Your task to perform on an android device: Turn on the flashlight Image 0: 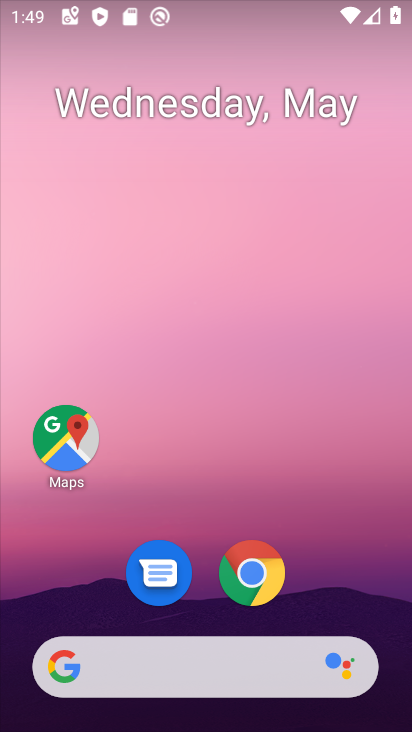
Step 0: drag from (322, 552) to (353, 33)
Your task to perform on an android device: Turn on the flashlight Image 1: 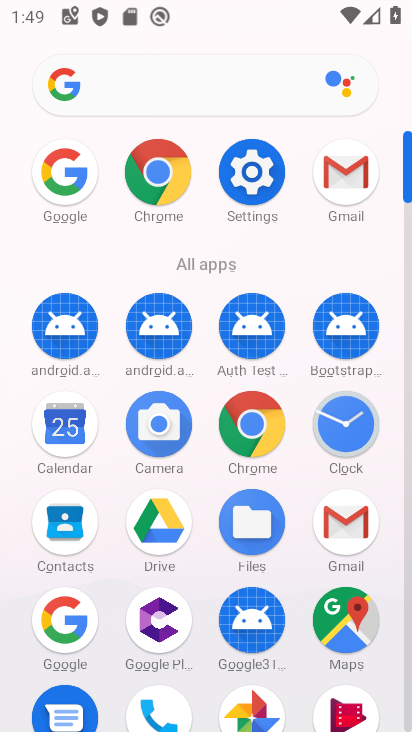
Step 1: click (247, 180)
Your task to perform on an android device: Turn on the flashlight Image 2: 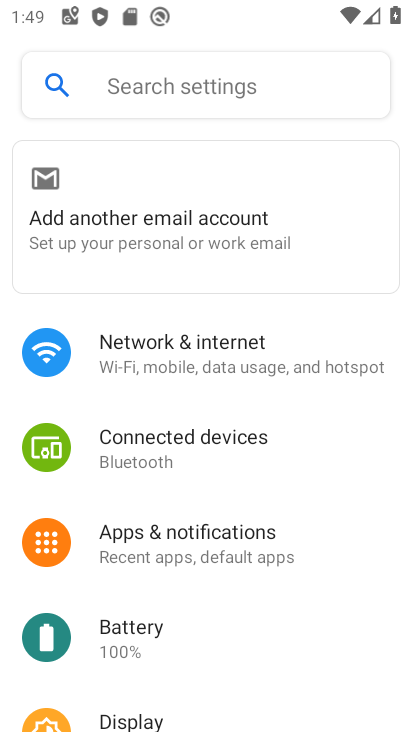
Step 2: task complete